Your task to perform on an android device: Open the phone app and click the voicemail tab. Image 0: 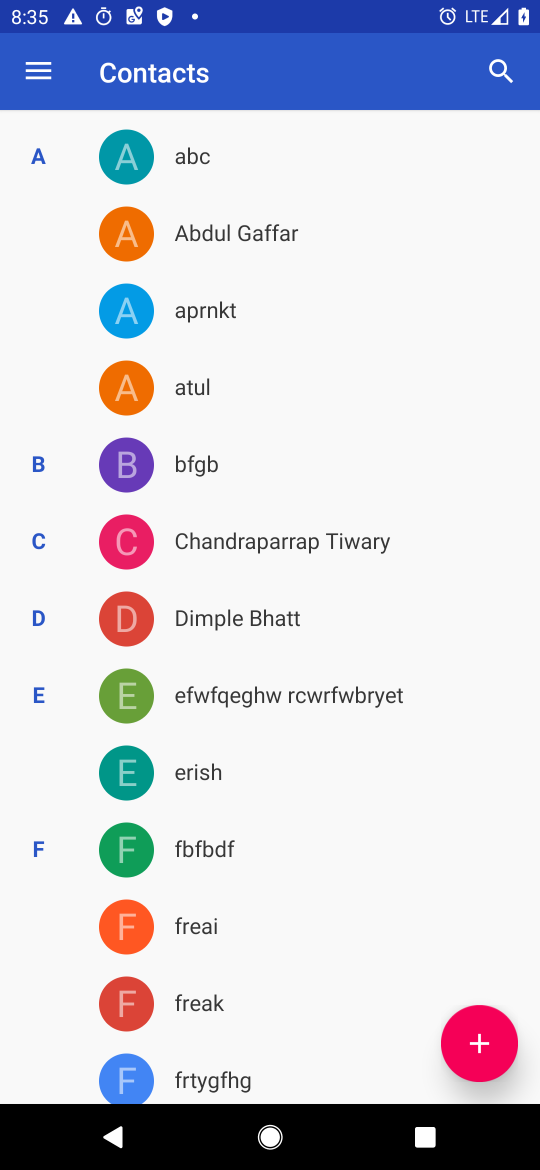
Step 0: press home button
Your task to perform on an android device: Open the phone app and click the voicemail tab. Image 1: 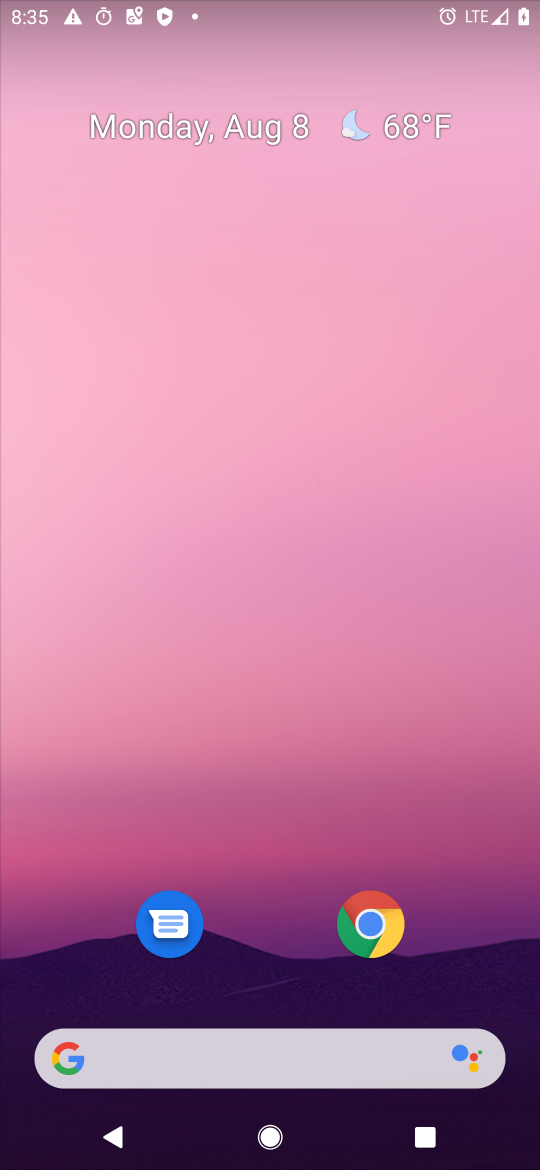
Step 1: drag from (261, 1000) to (281, 0)
Your task to perform on an android device: Open the phone app and click the voicemail tab. Image 2: 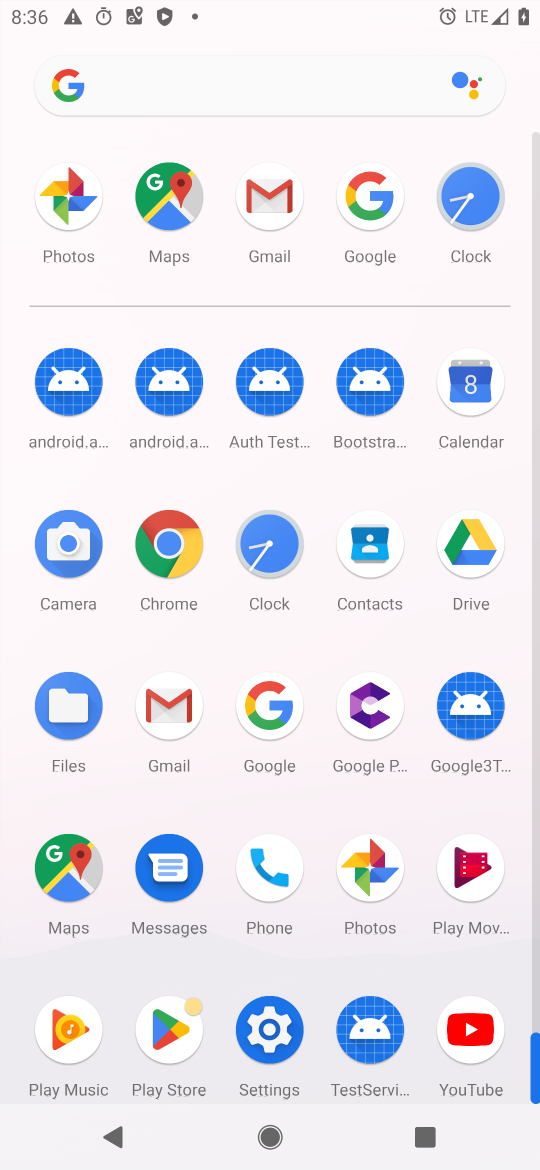
Step 2: click (253, 849)
Your task to perform on an android device: Open the phone app and click the voicemail tab. Image 3: 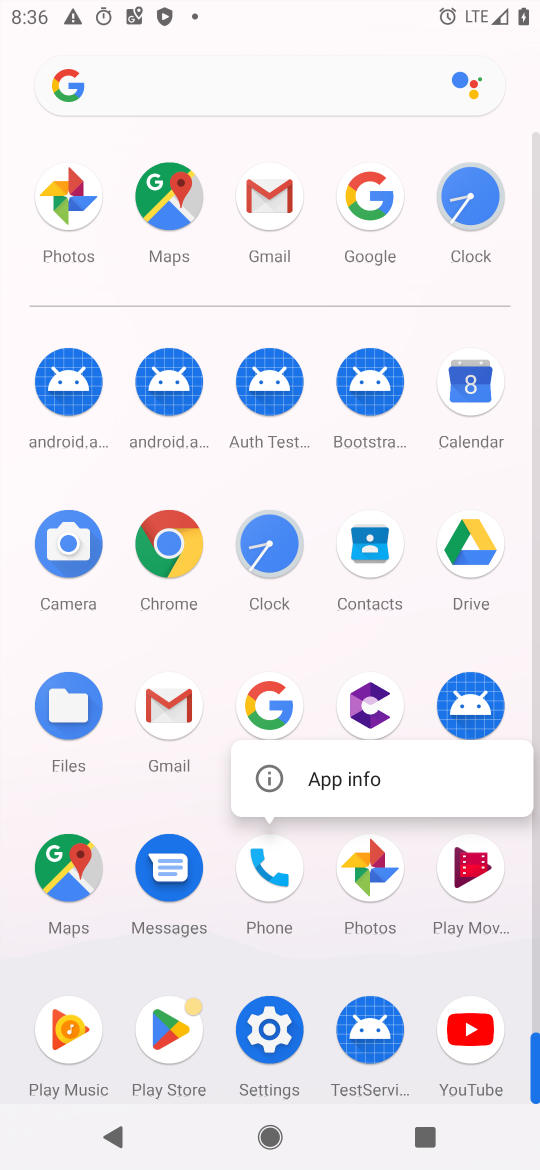
Step 3: click (359, 781)
Your task to perform on an android device: Open the phone app and click the voicemail tab. Image 4: 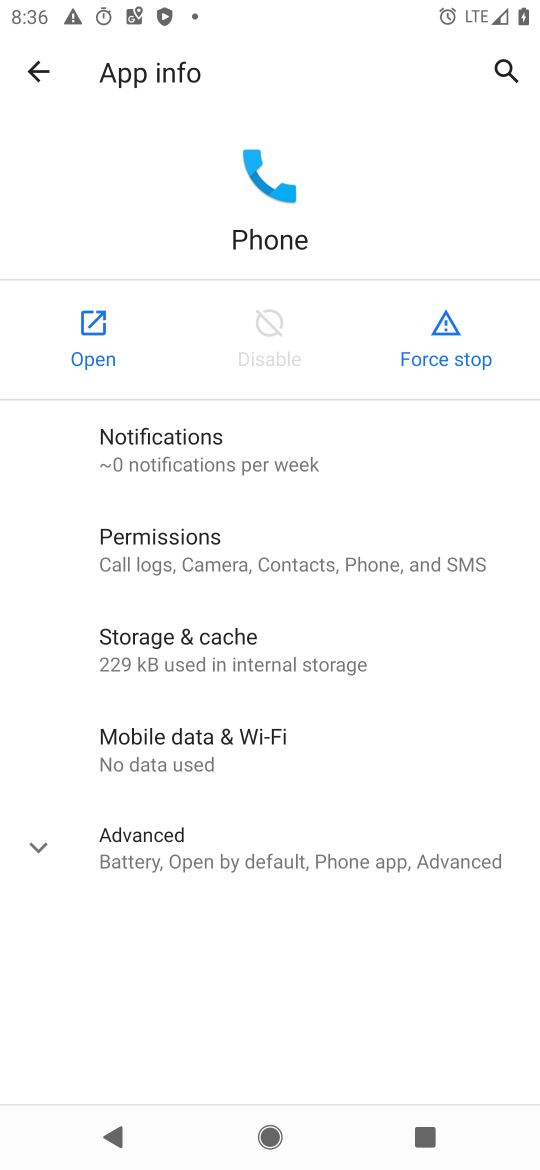
Step 4: click (92, 337)
Your task to perform on an android device: Open the phone app and click the voicemail tab. Image 5: 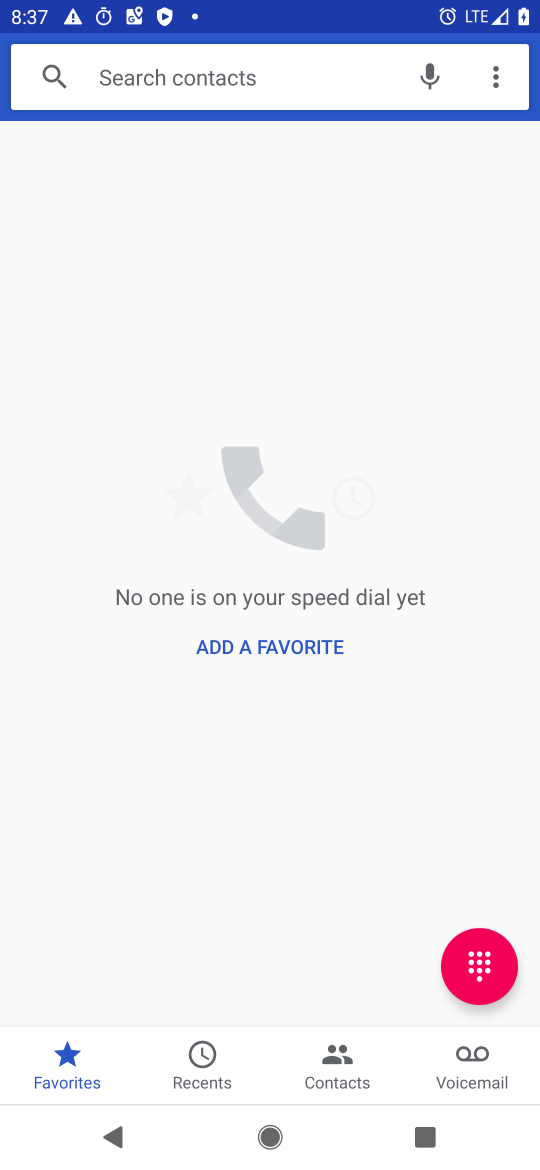
Step 5: click (432, 1073)
Your task to perform on an android device: Open the phone app and click the voicemail tab. Image 6: 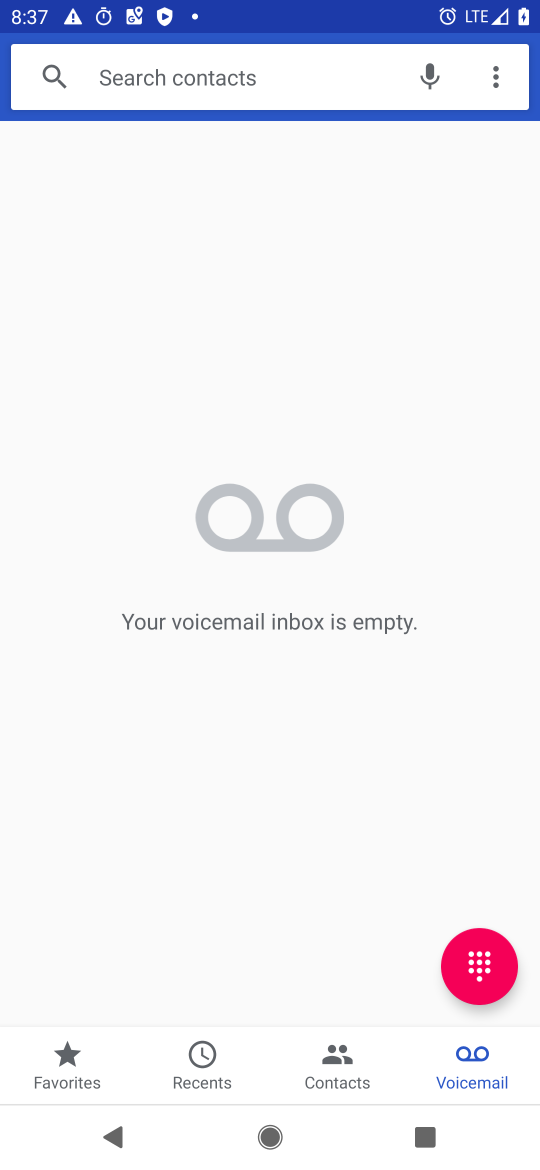
Step 6: click (491, 1083)
Your task to perform on an android device: Open the phone app and click the voicemail tab. Image 7: 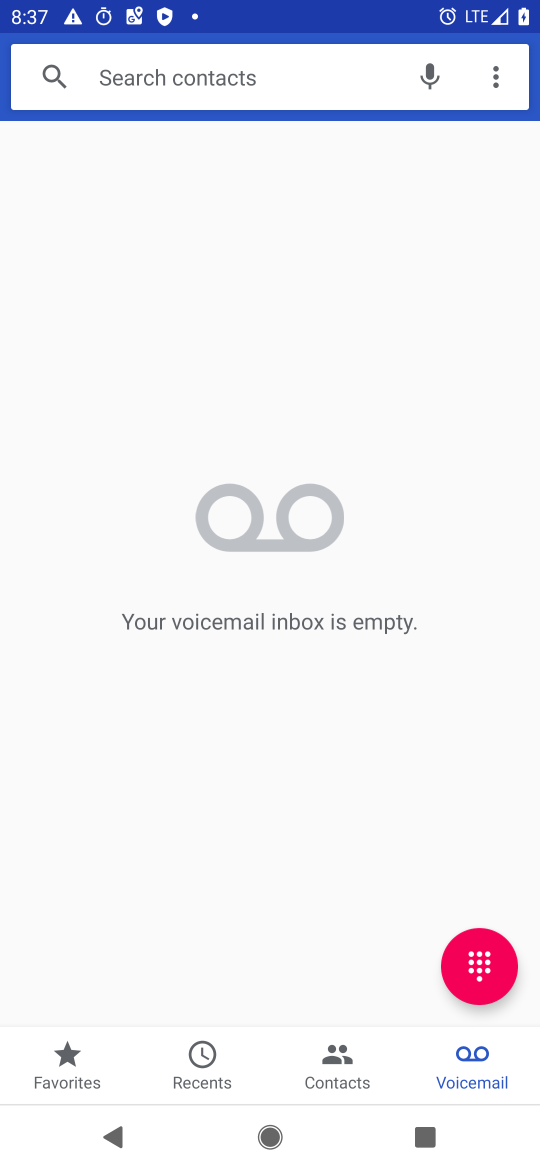
Step 7: task complete